Your task to perform on an android device: Add "corsair k70" to the cart on ebay Image 0: 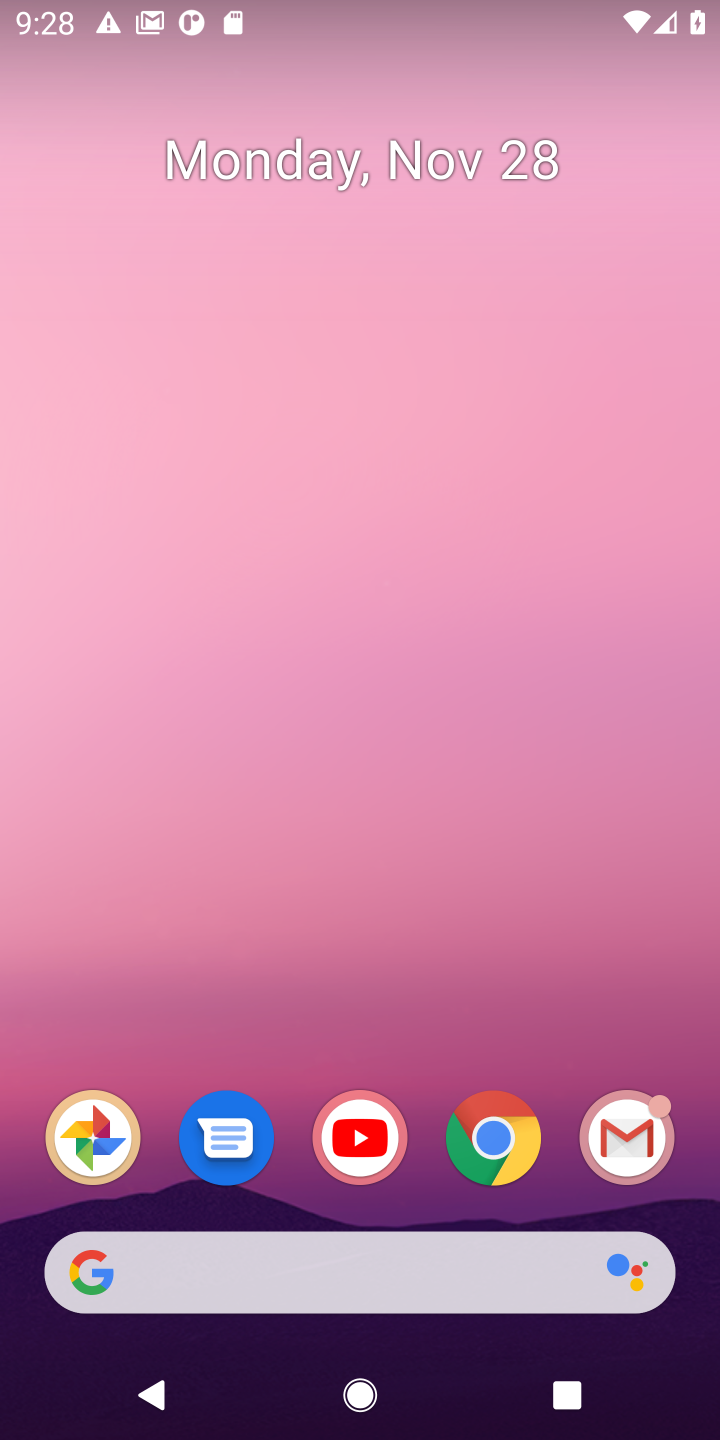
Step 0: click (496, 1149)
Your task to perform on an android device: Add "corsair k70" to the cart on ebay Image 1: 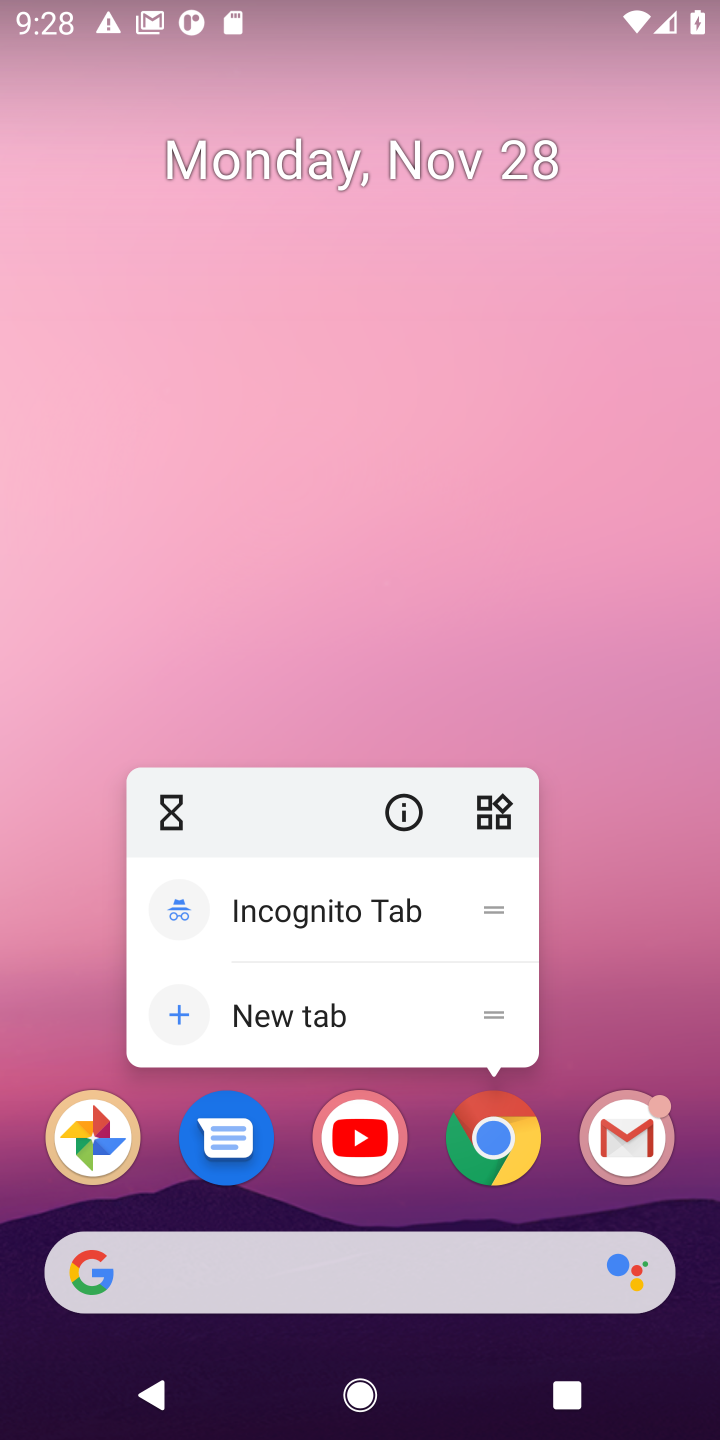
Step 1: click (496, 1149)
Your task to perform on an android device: Add "corsair k70" to the cart on ebay Image 2: 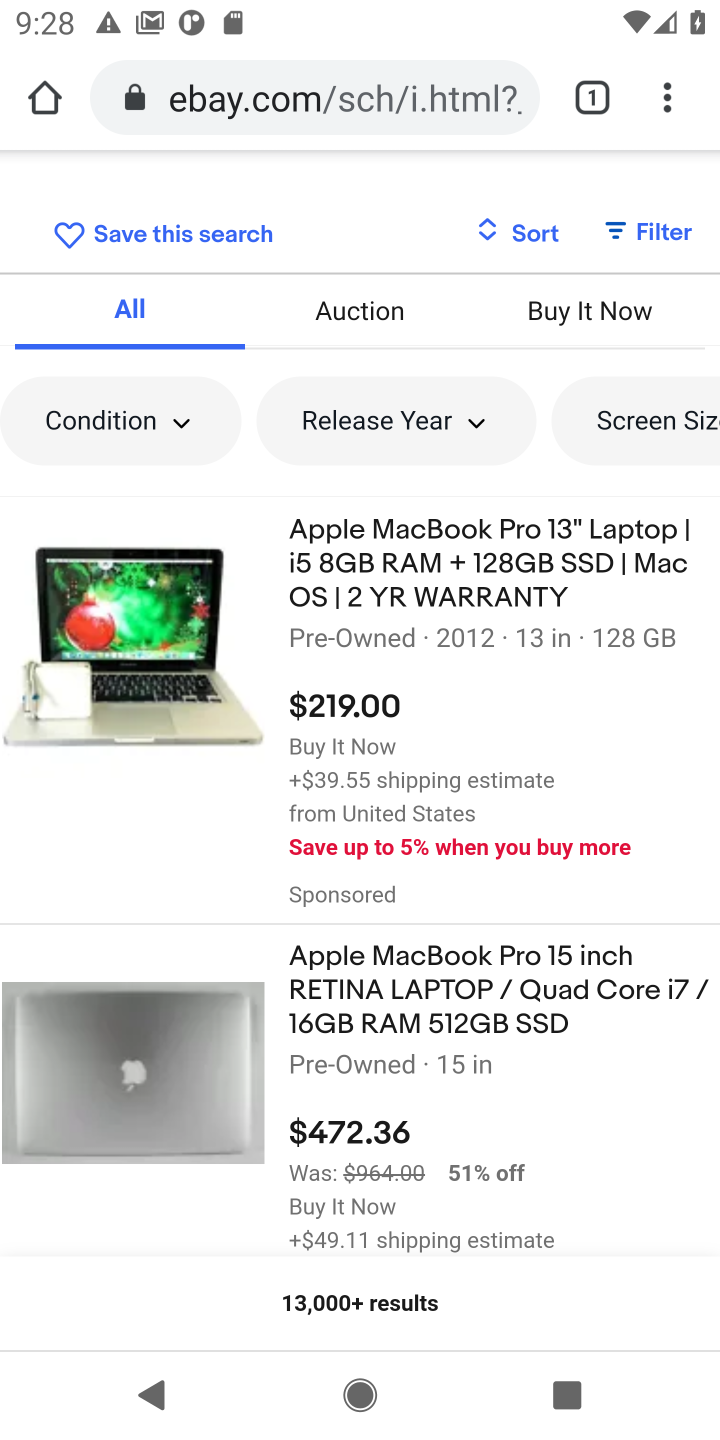
Step 2: drag from (397, 226) to (394, 439)
Your task to perform on an android device: Add "corsair k70" to the cart on ebay Image 3: 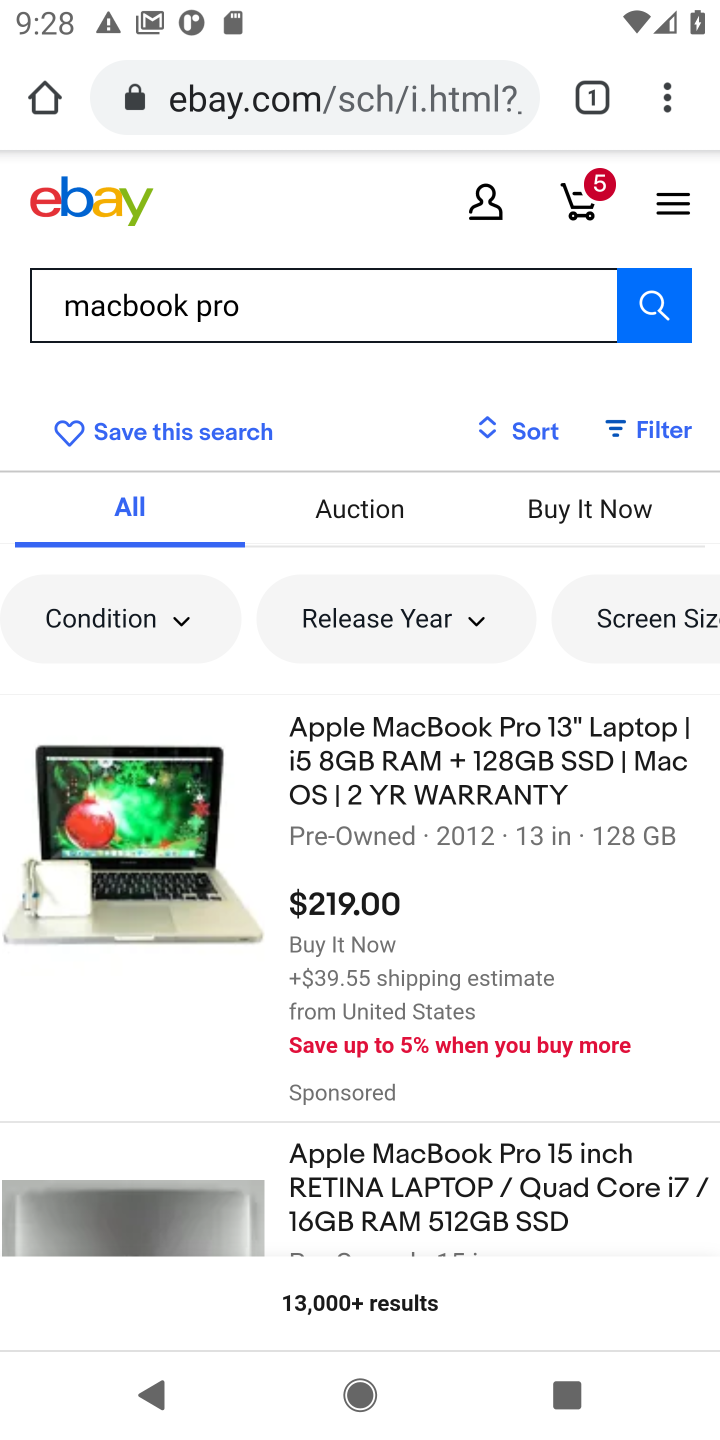
Step 3: click (278, 310)
Your task to perform on an android device: Add "corsair k70" to the cart on ebay Image 4: 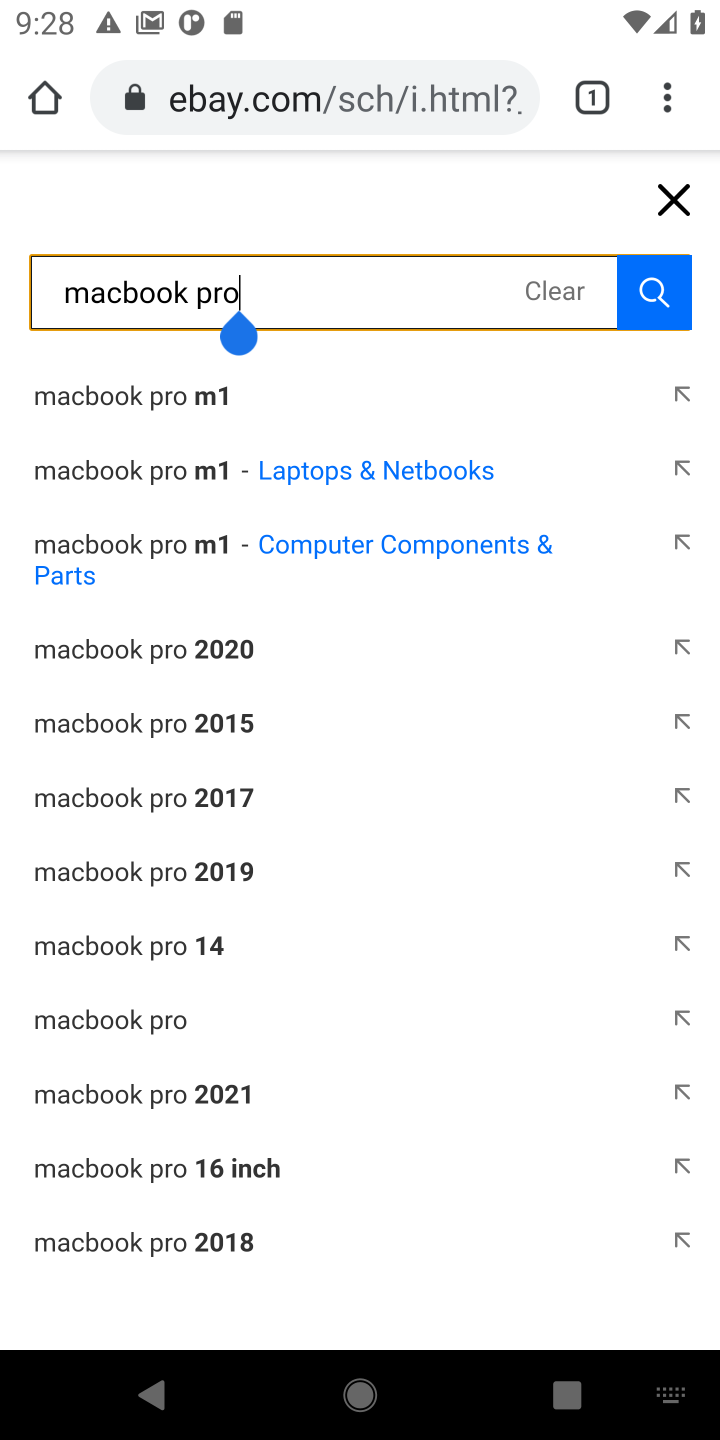
Step 4: click (545, 299)
Your task to perform on an android device: Add "corsair k70" to the cart on ebay Image 5: 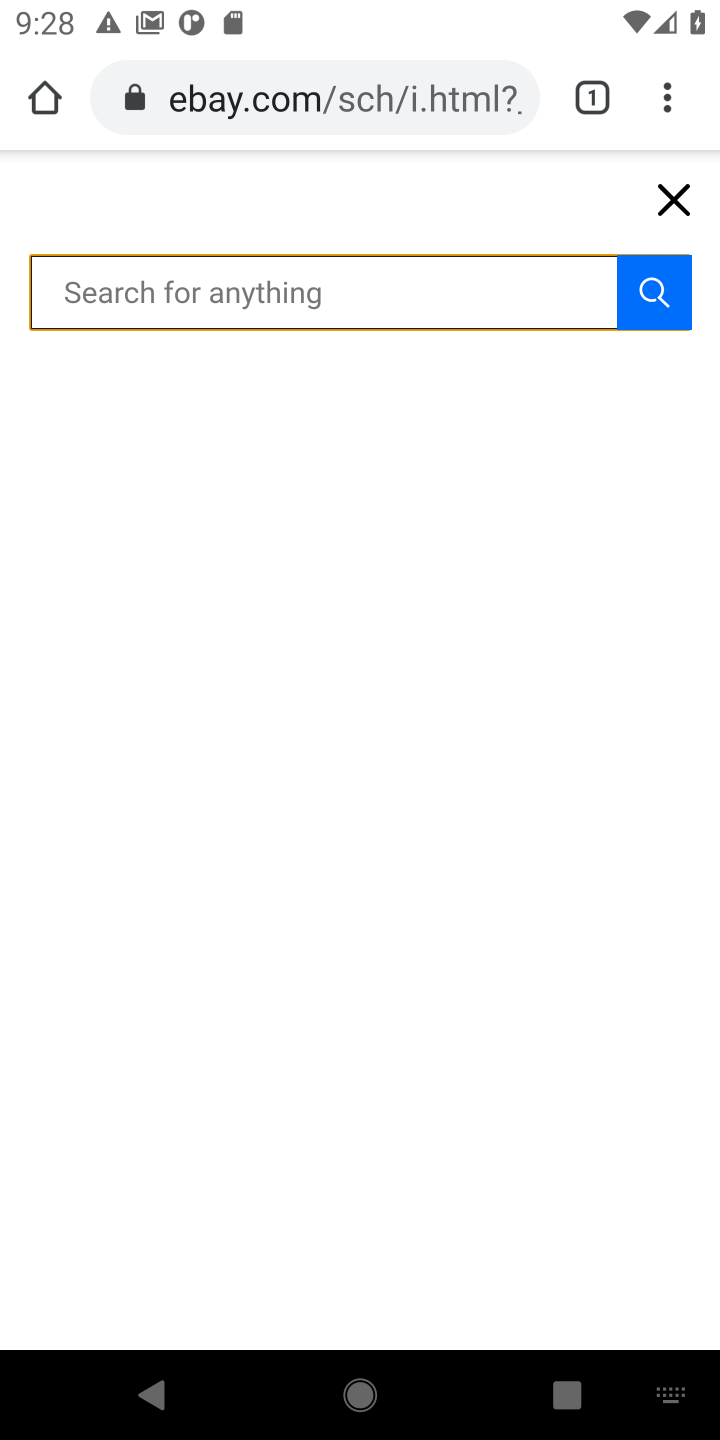
Step 5: type "corsair k70"
Your task to perform on an android device: Add "corsair k70" to the cart on ebay Image 6: 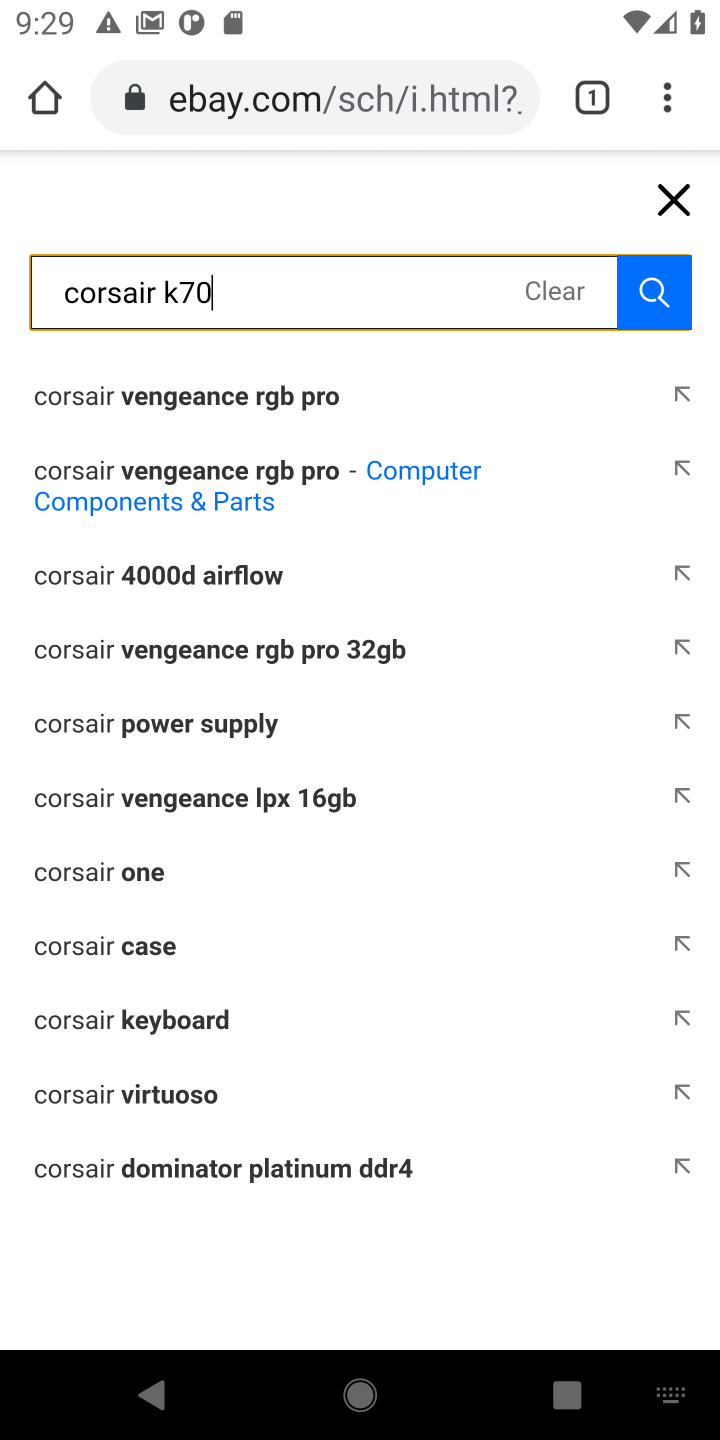
Step 6: click (646, 306)
Your task to perform on an android device: Add "corsair k70" to the cart on ebay Image 7: 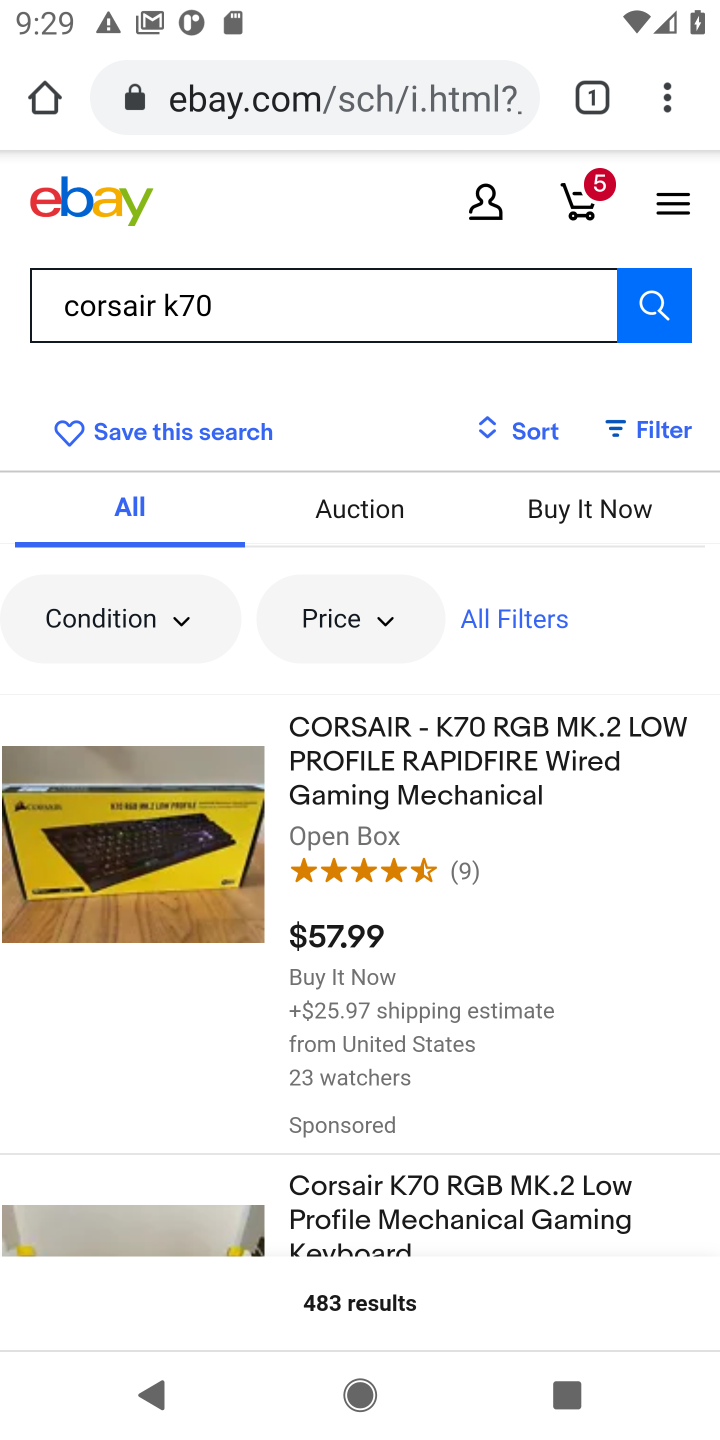
Step 7: click (406, 792)
Your task to perform on an android device: Add "corsair k70" to the cart on ebay Image 8: 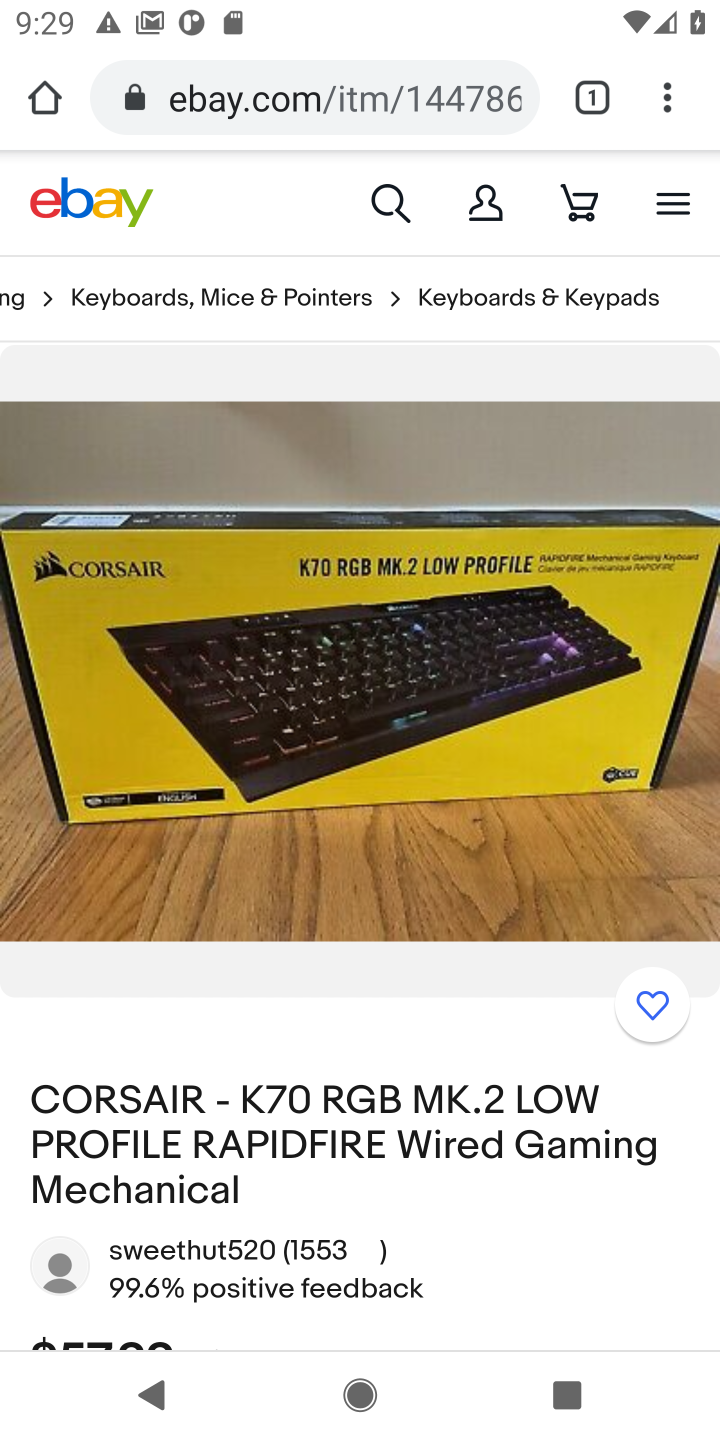
Step 8: drag from (418, 995) to (441, 446)
Your task to perform on an android device: Add "corsair k70" to the cart on ebay Image 9: 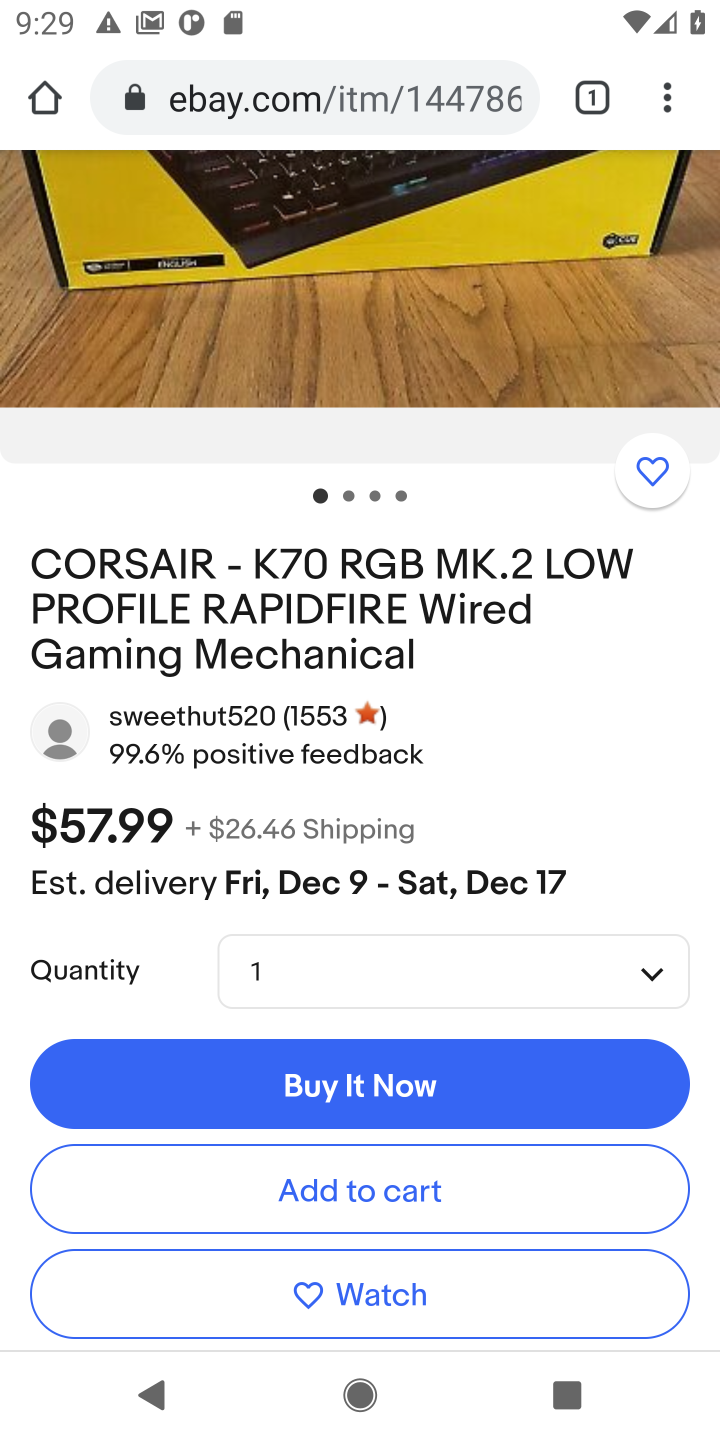
Step 9: click (331, 1197)
Your task to perform on an android device: Add "corsair k70" to the cart on ebay Image 10: 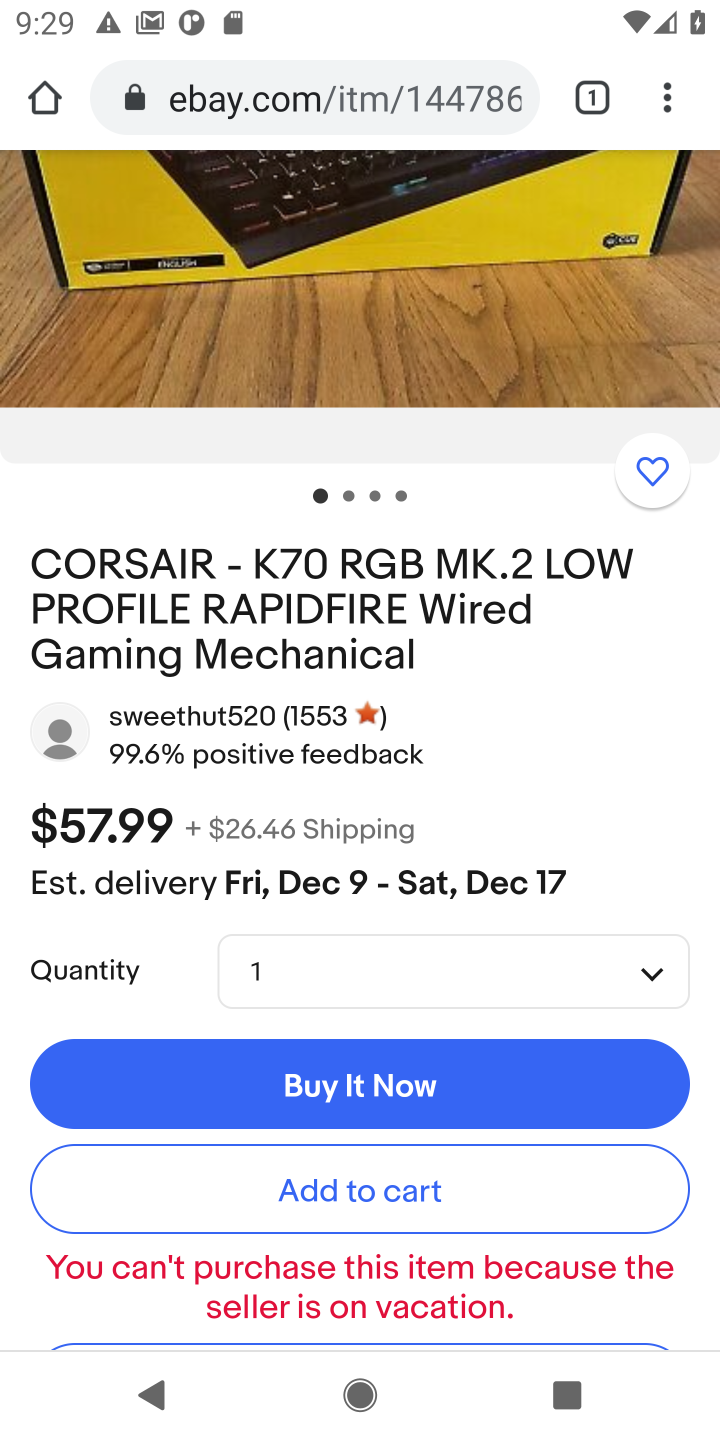
Step 10: press back button
Your task to perform on an android device: Add "corsair k70" to the cart on ebay Image 11: 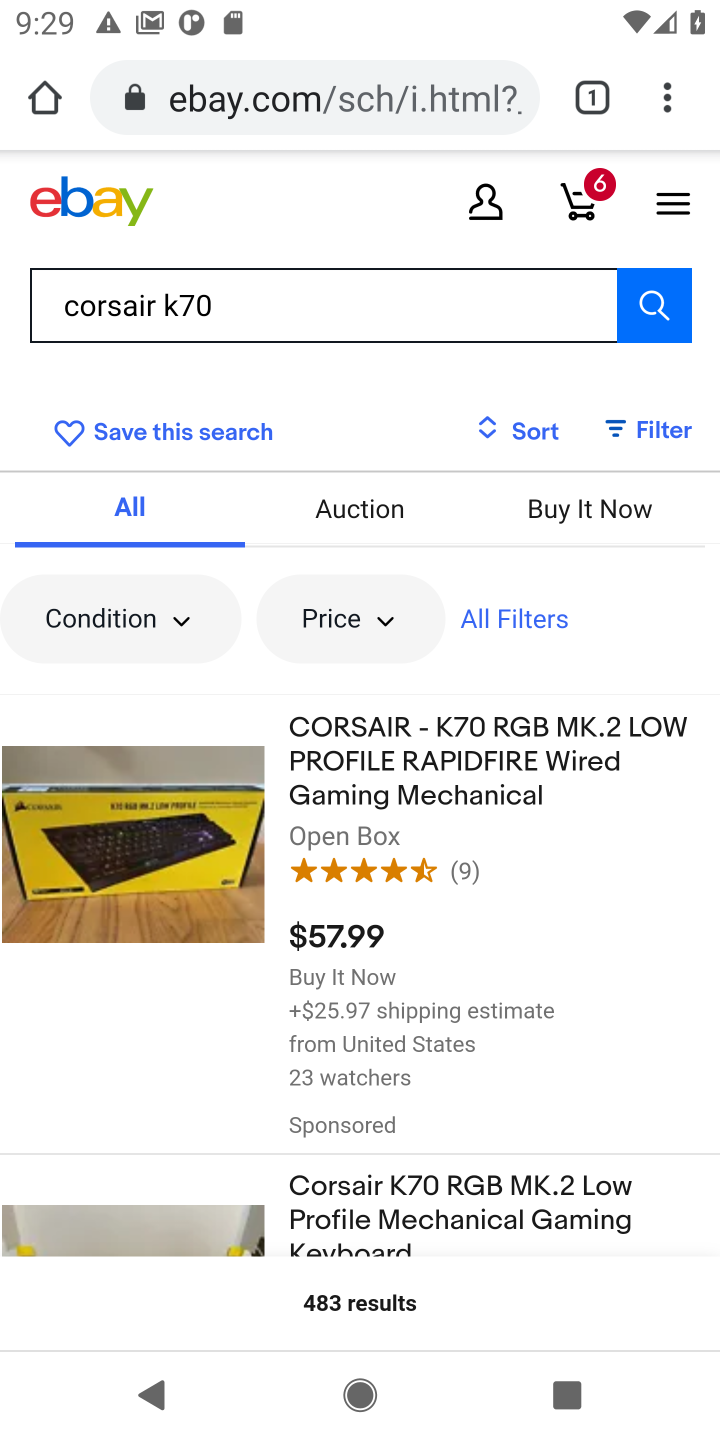
Step 11: drag from (440, 912) to (501, 353)
Your task to perform on an android device: Add "corsair k70" to the cart on ebay Image 12: 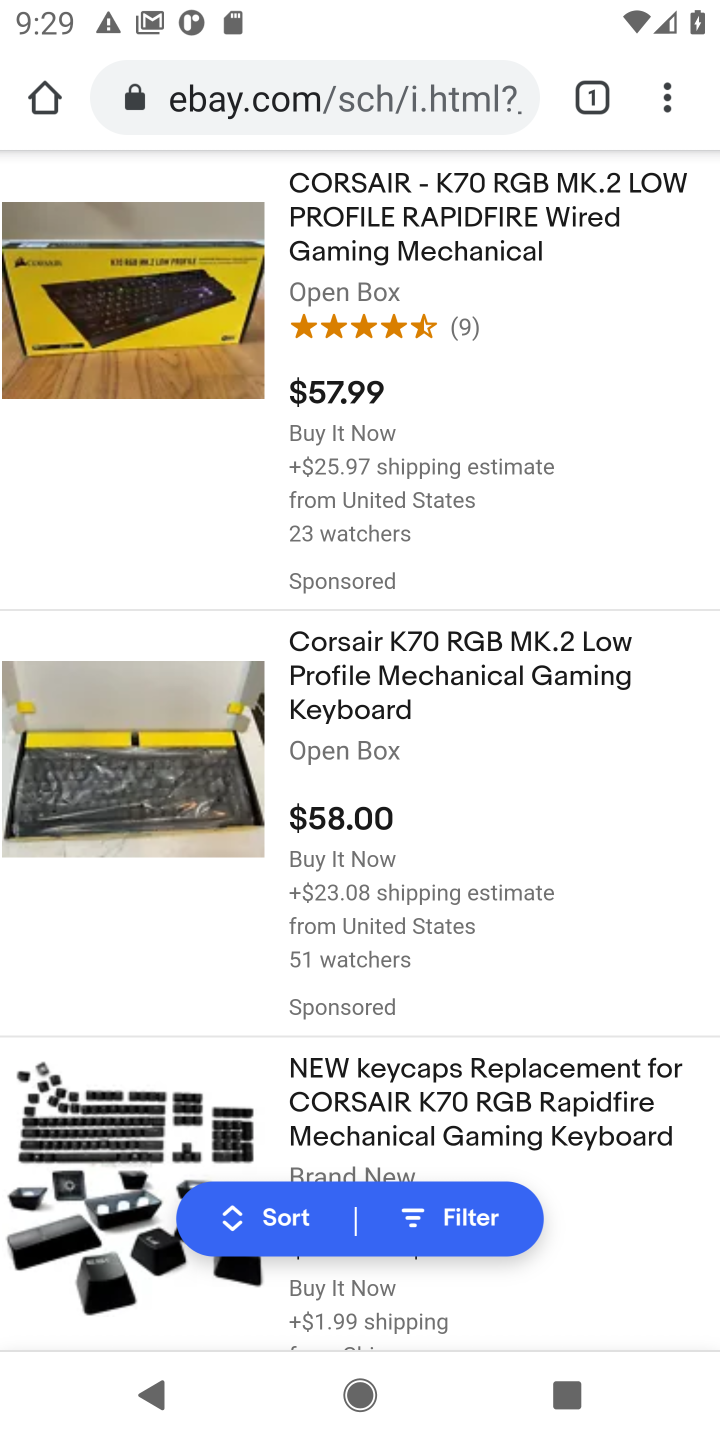
Step 12: click (326, 706)
Your task to perform on an android device: Add "corsair k70" to the cart on ebay Image 13: 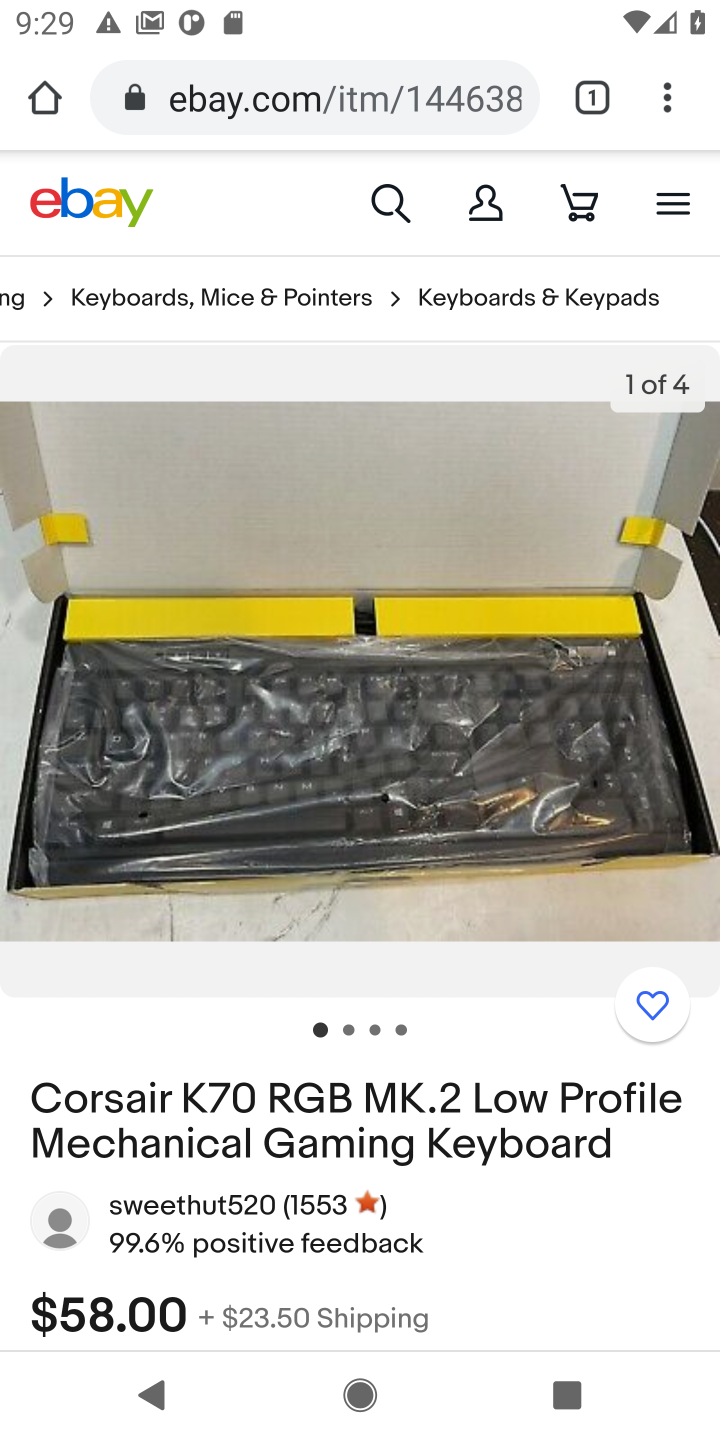
Step 13: drag from (353, 946) to (385, 499)
Your task to perform on an android device: Add "corsair k70" to the cart on ebay Image 14: 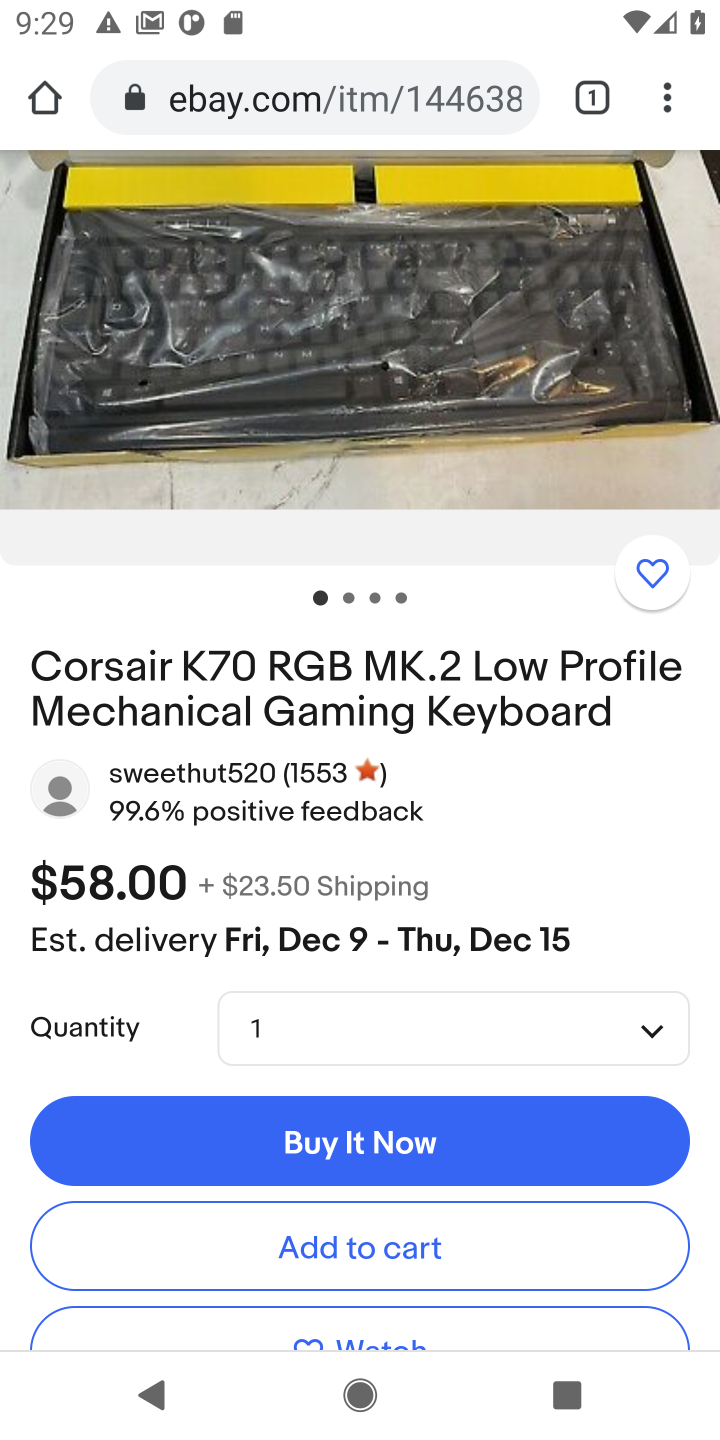
Step 14: drag from (315, 900) to (374, 503)
Your task to perform on an android device: Add "corsair k70" to the cart on ebay Image 15: 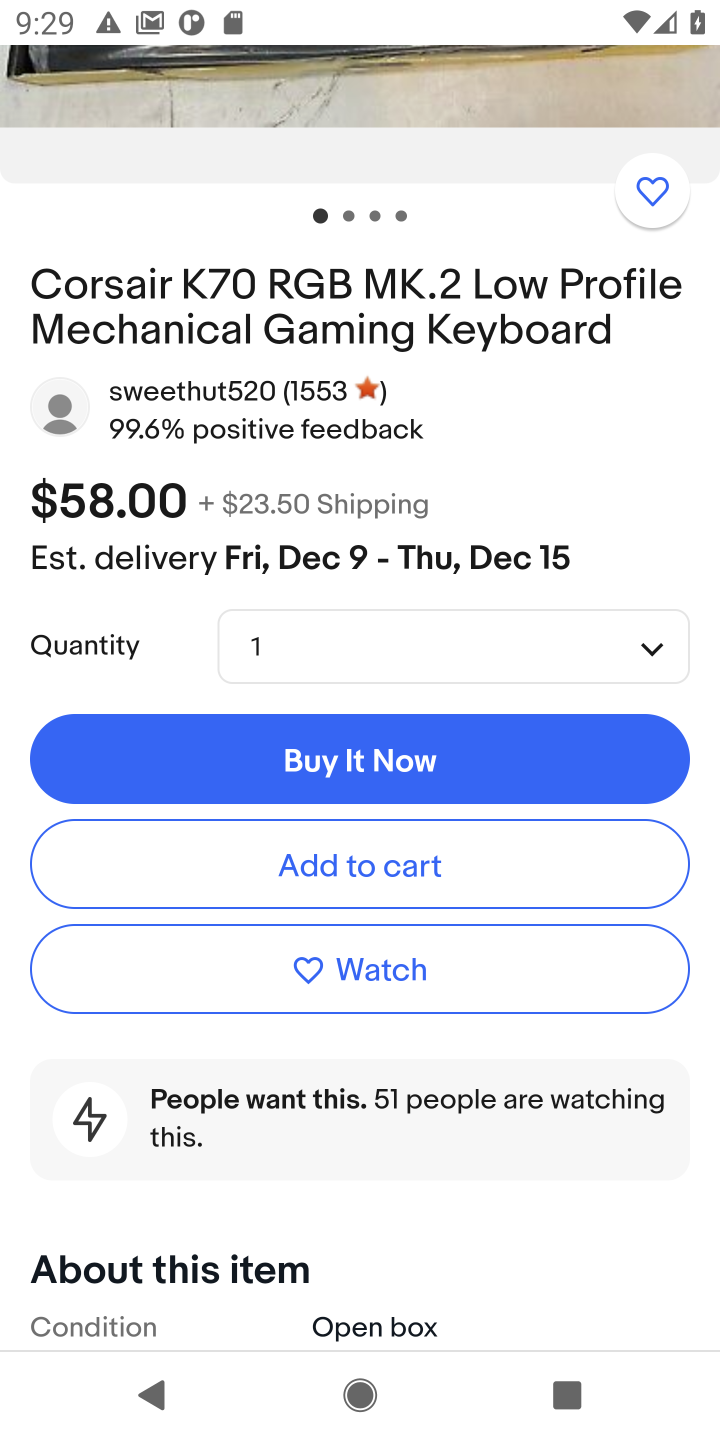
Step 15: click (317, 865)
Your task to perform on an android device: Add "corsair k70" to the cart on ebay Image 16: 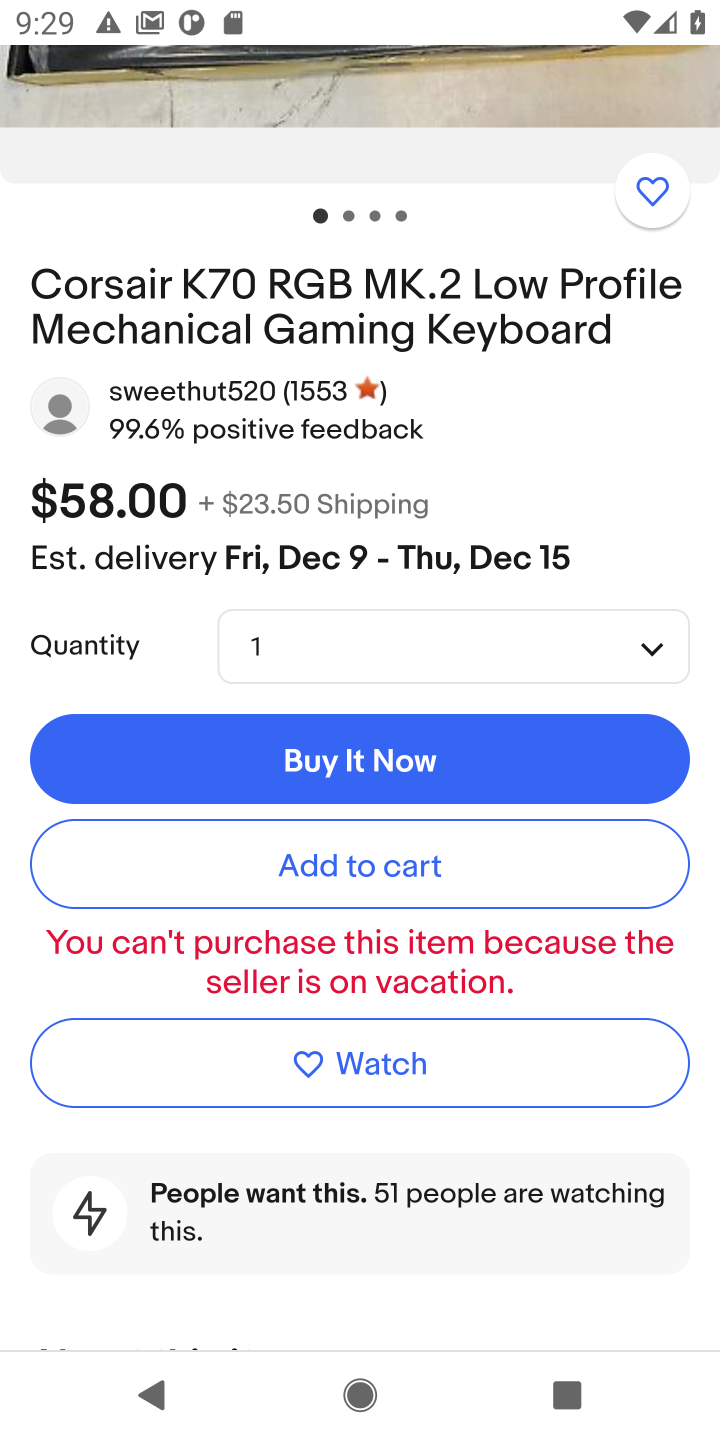
Step 16: press back button
Your task to perform on an android device: Add "corsair k70" to the cart on ebay Image 17: 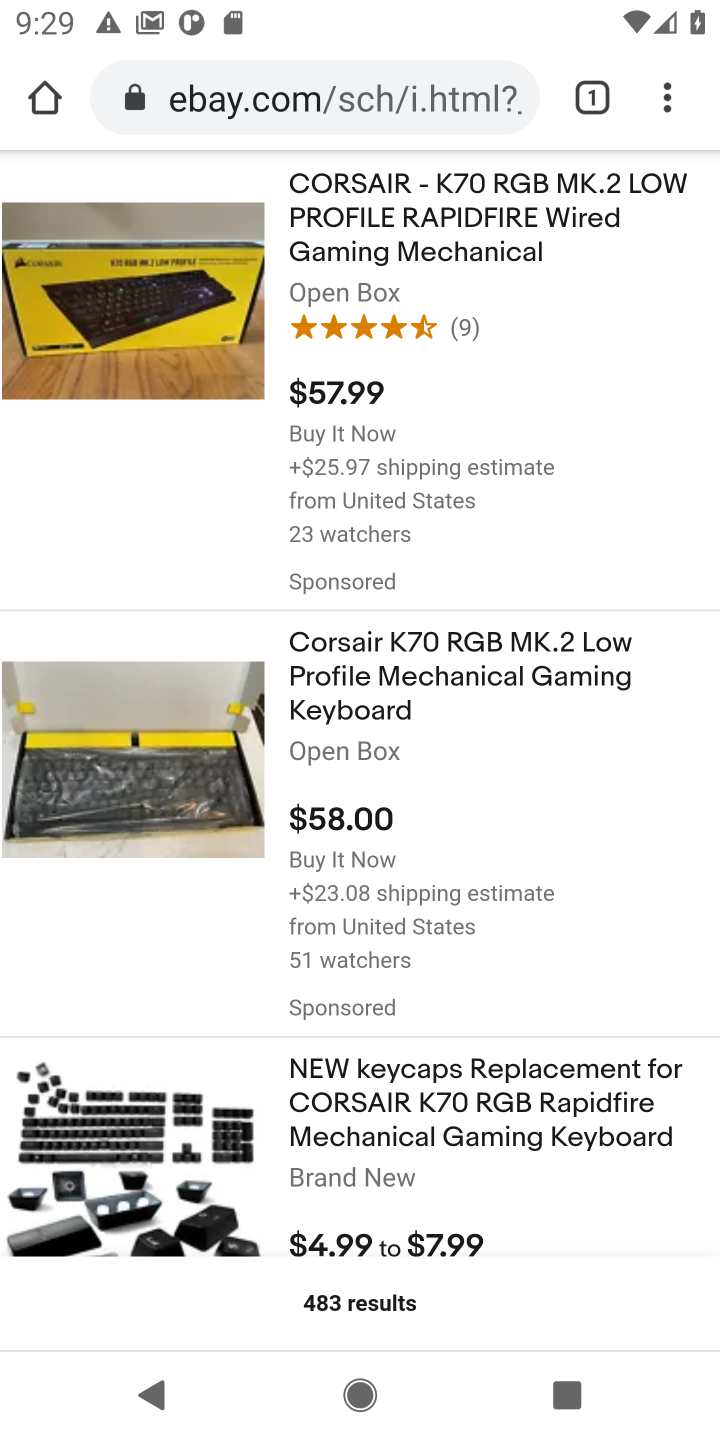
Step 17: drag from (386, 834) to (407, 411)
Your task to perform on an android device: Add "corsair k70" to the cart on ebay Image 18: 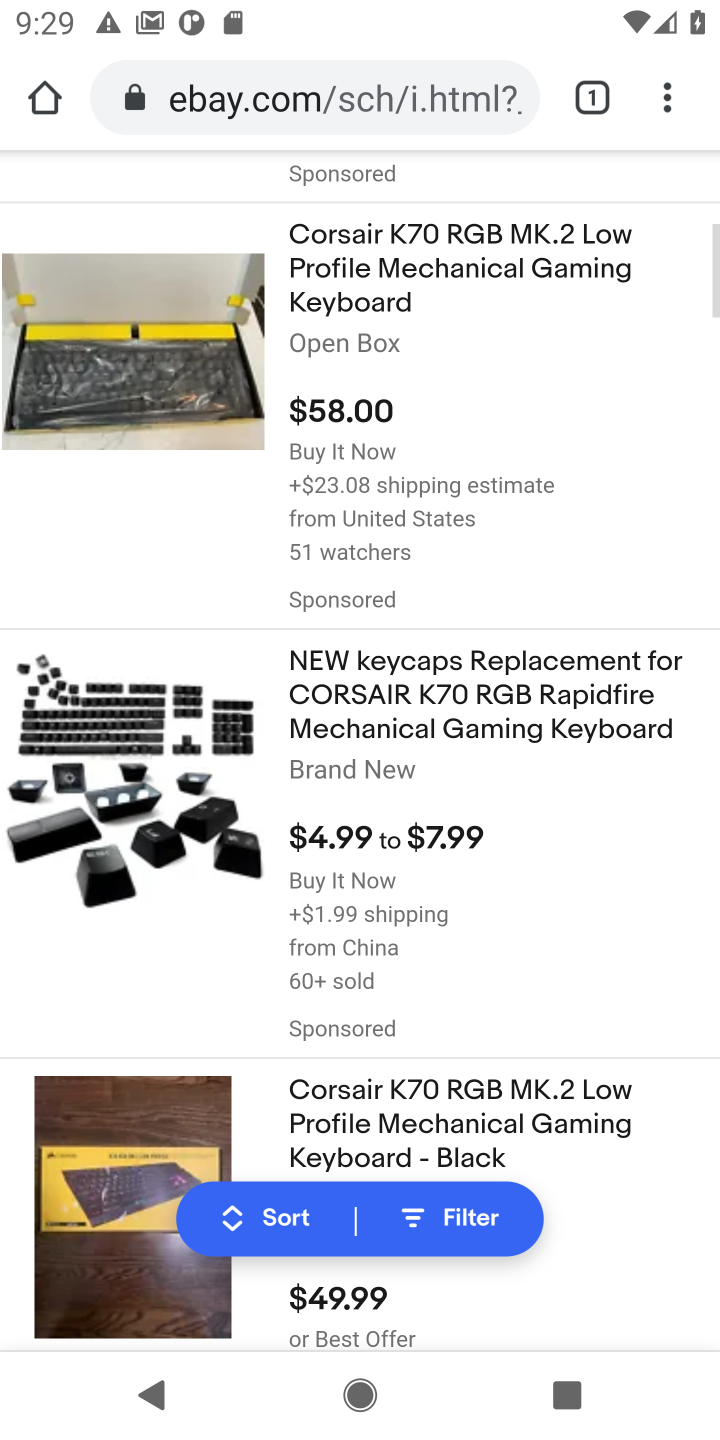
Step 18: drag from (358, 941) to (379, 492)
Your task to perform on an android device: Add "corsair k70" to the cart on ebay Image 19: 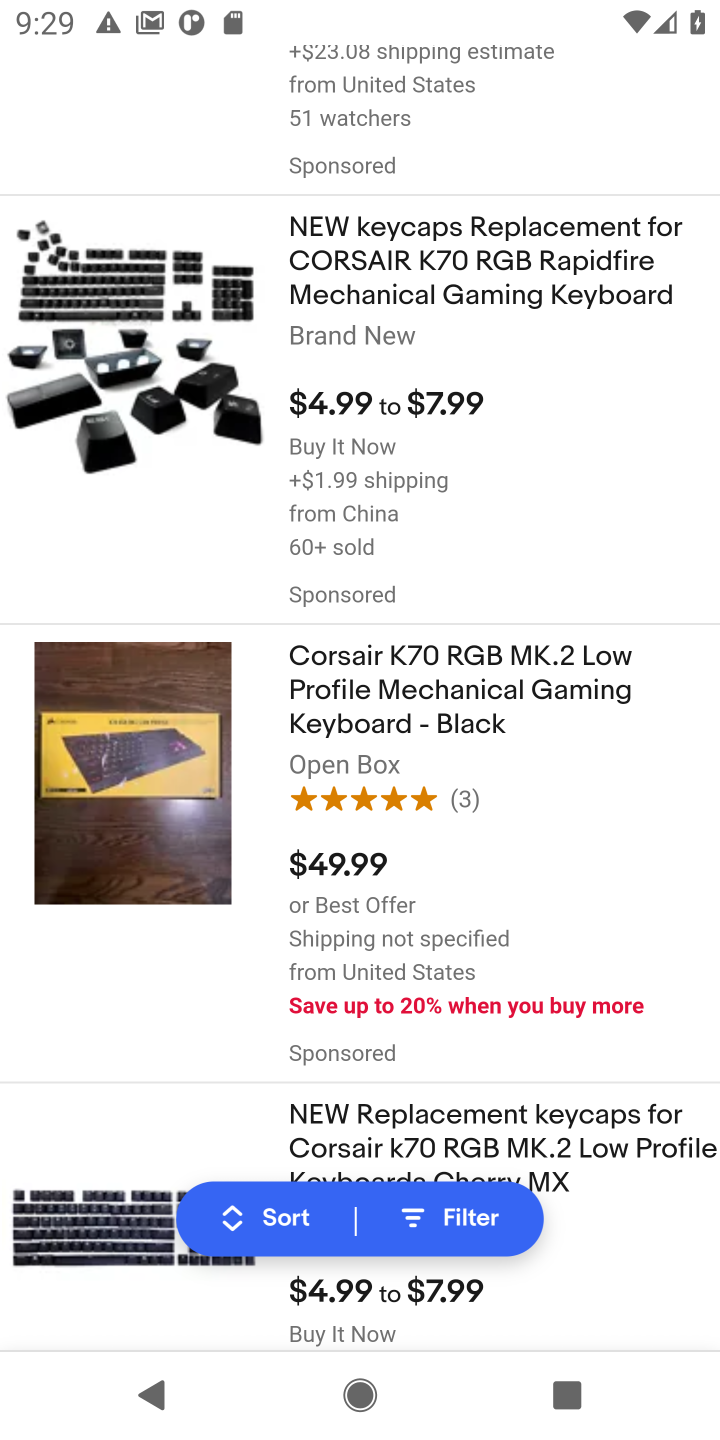
Step 19: click (360, 732)
Your task to perform on an android device: Add "corsair k70" to the cart on ebay Image 20: 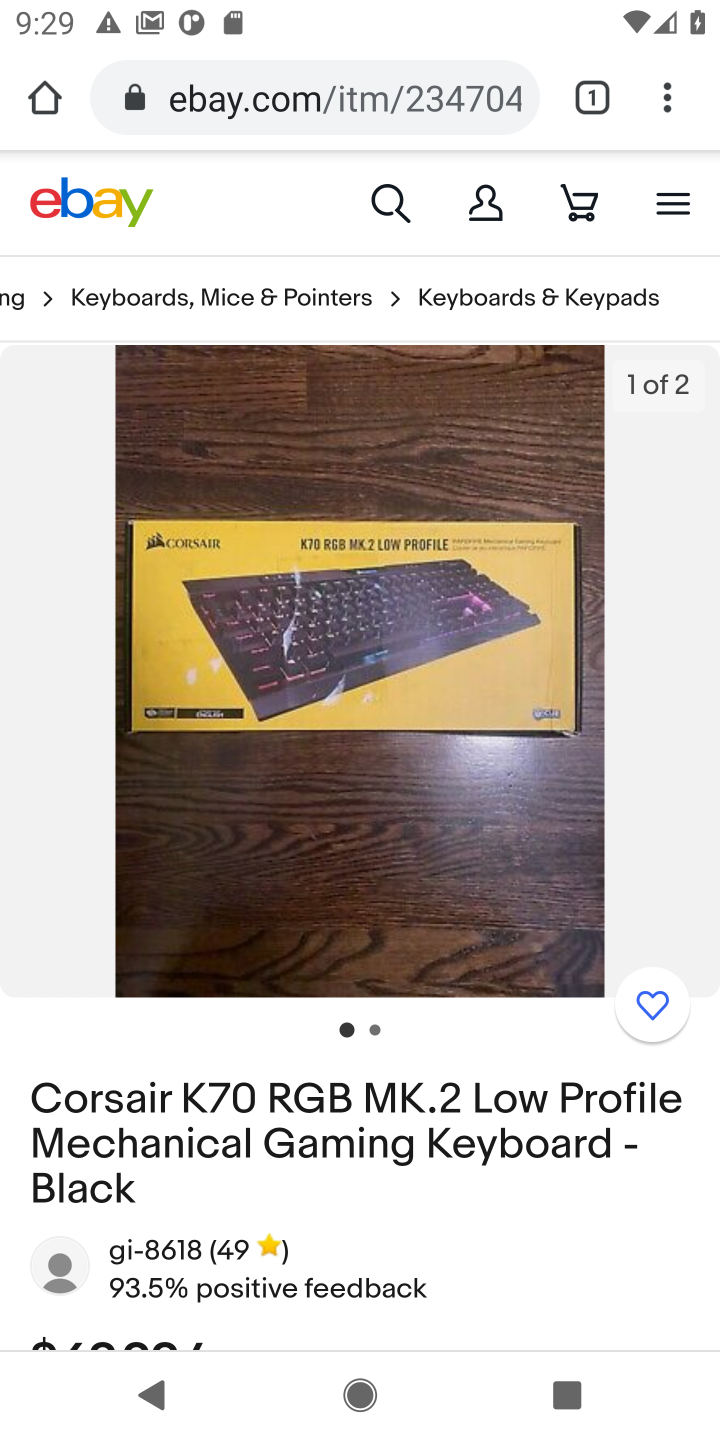
Step 20: drag from (394, 1047) to (427, 386)
Your task to perform on an android device: Add "corsair k70" to the cart on ebay Image 21: 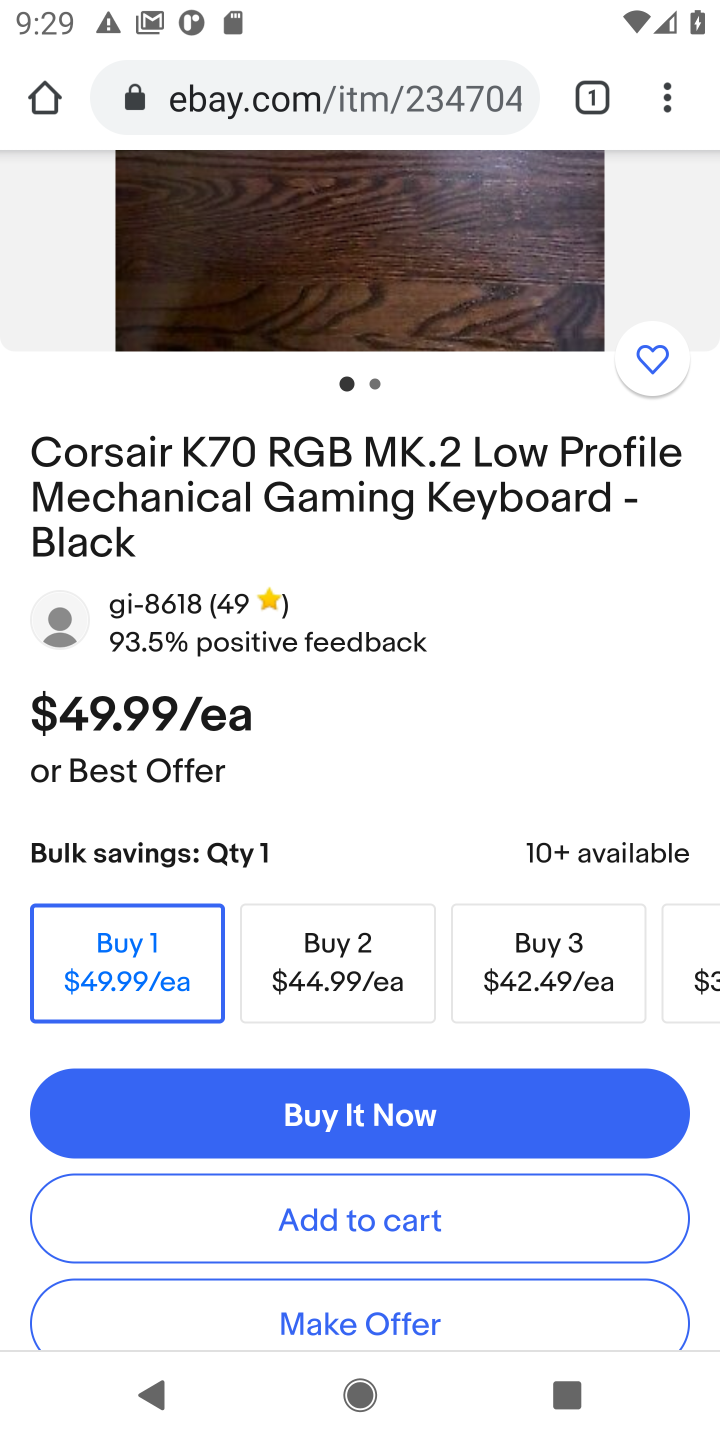
Step 21: click (383, 1223)
Your task to perform on an android device: Add "corsair k70" to the cart on ebay Image 22: 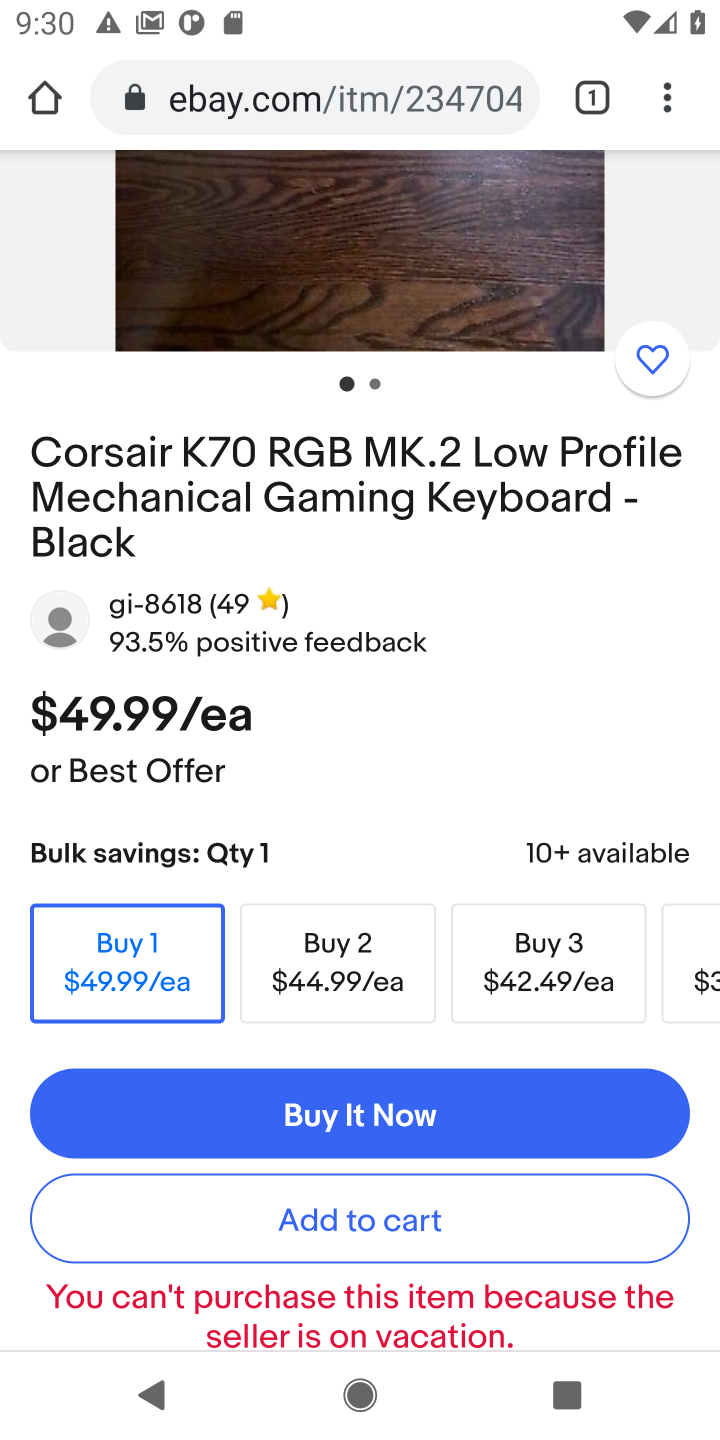
Step 22: task complete